Your task to perform on an android device: clear history in the chrome app Image 0: 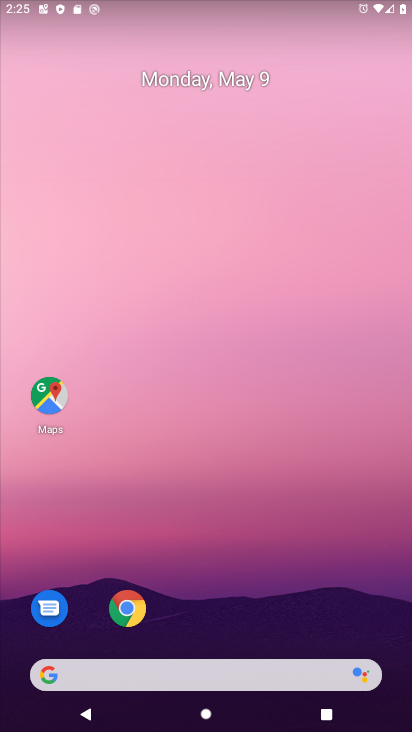
Step 0: click (132, 625)
Your task to perform on an android device: clear history in the chrome app Image 1: 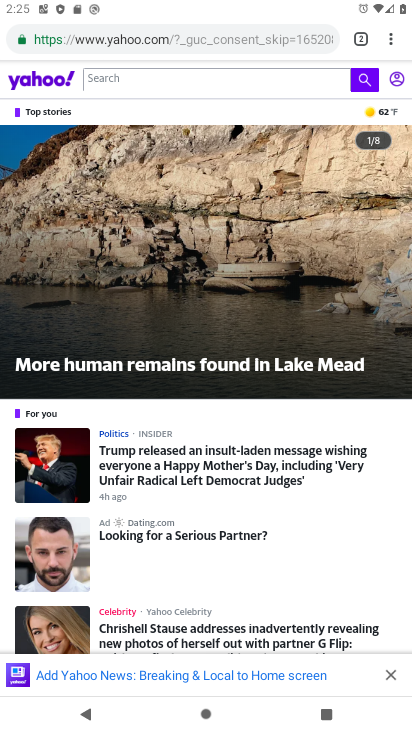
Step 1: click (382, 37)
Your task to perform on an android device: clear history in the chrome app Image 2: 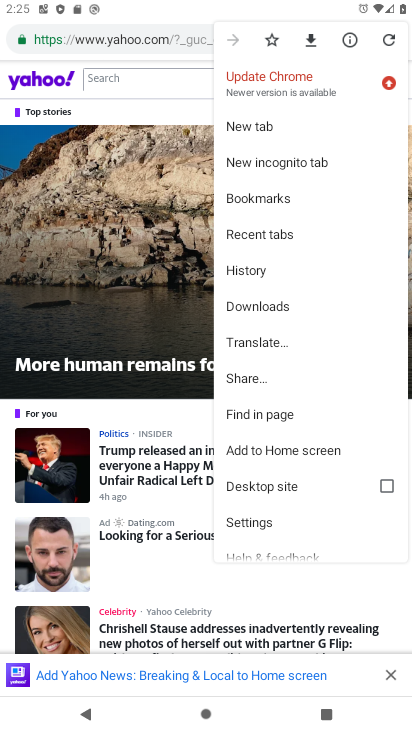
Step 2: click (260, 274)
Your task to perform on an android device: clear history in the chrome app Image 3: 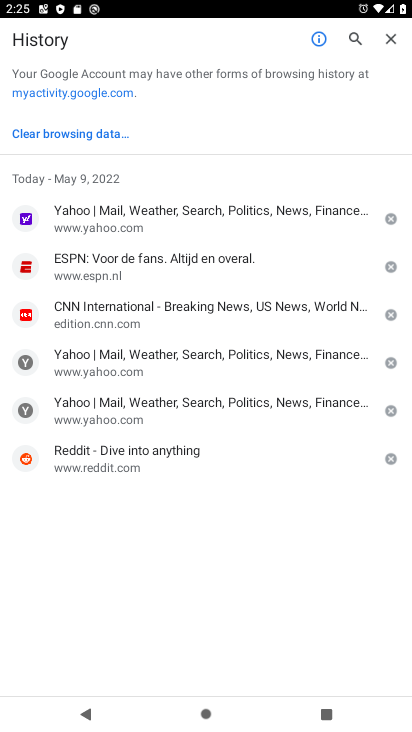
Step 3: click (92, 130)
Your task to perform on an android device: clear history in the chrome app Image 4: 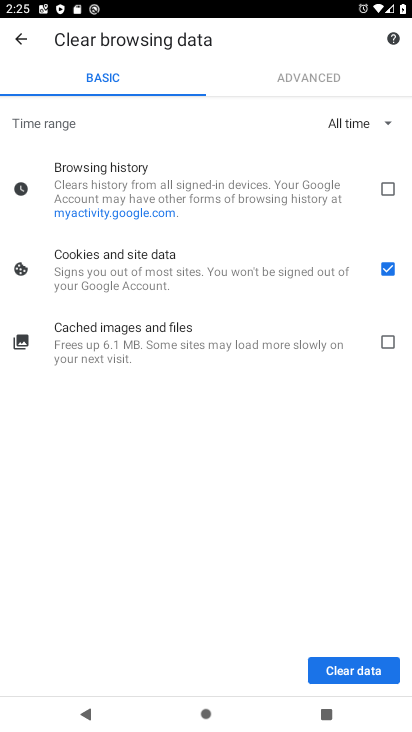
Step 4: click (397, 190)
Your task to perform on an android device: clear history in the chrome app Image 5: 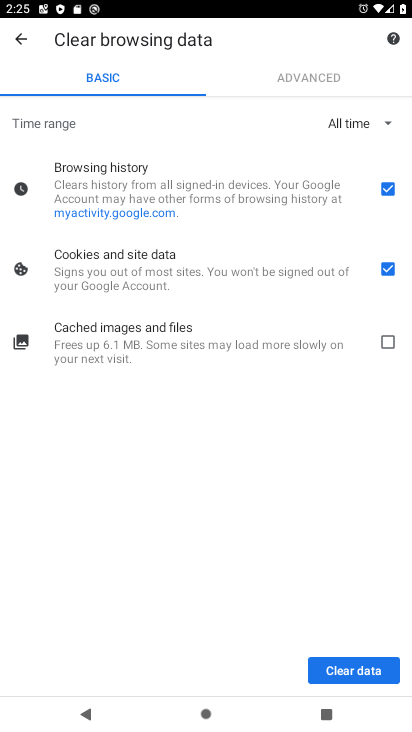
Step 5: click (390, 273)
Your task to perform on an android device: clear history in the chrome app Image 6: 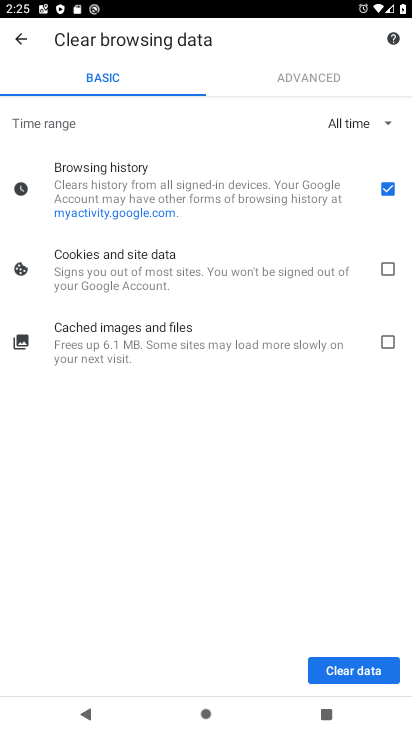
Step 6: click (345, 673)
Your task to perform on an android device: clear history in the chrome app Image 7: 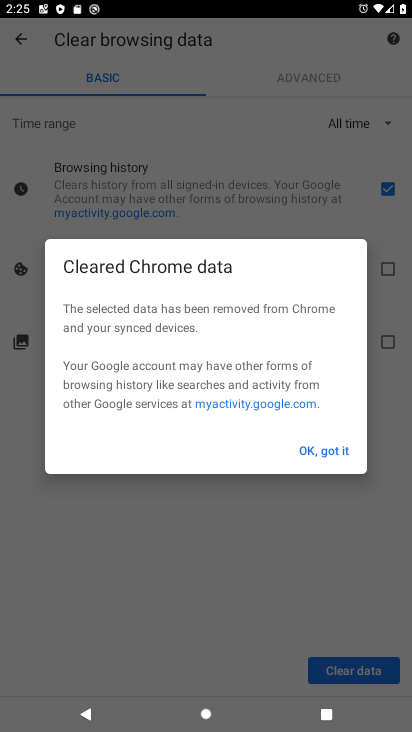
Step 7: click (310, 463)
Your task to perform on an android device: clear history in the chrome app Image 8: 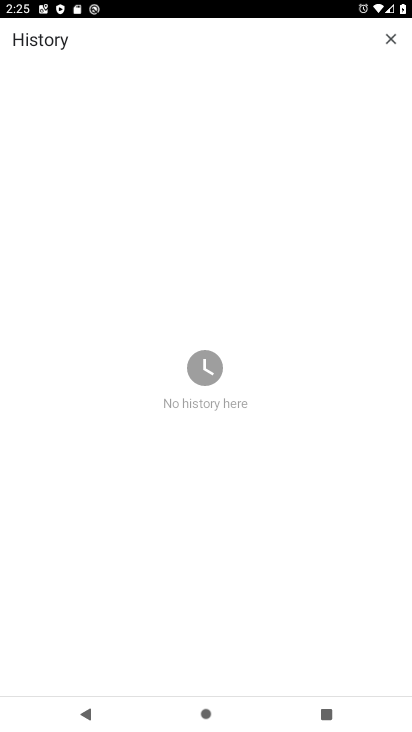
Step 8: task complete